Your task to perform on an android device: Open Youtube and go to "Your channel" Image 0: 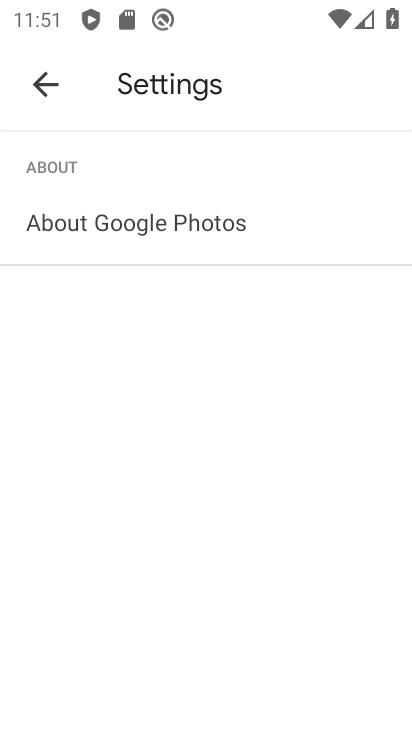
Step 0: press home button
Your task to perform on an android device: Open Youtube and go to "Your channel" Image 1: 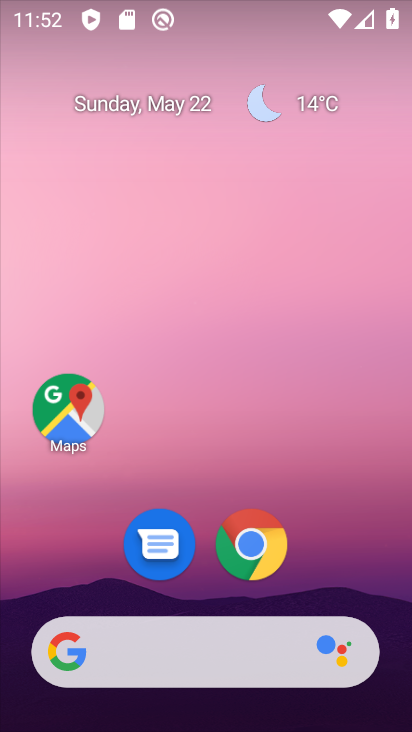
Step 1: drag from (304, 513) to (318, 142)
Your task to perform on an android device: Open Youtube and go to "Your channel" Image 2: 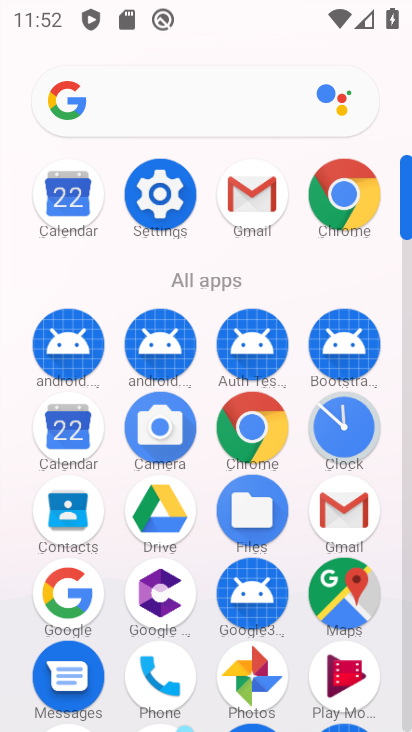
Step 2: drag from (262, 605) to (304, 181)
Your task to perform on an android device: Open Youtube and go to "Your channel" Image 3: 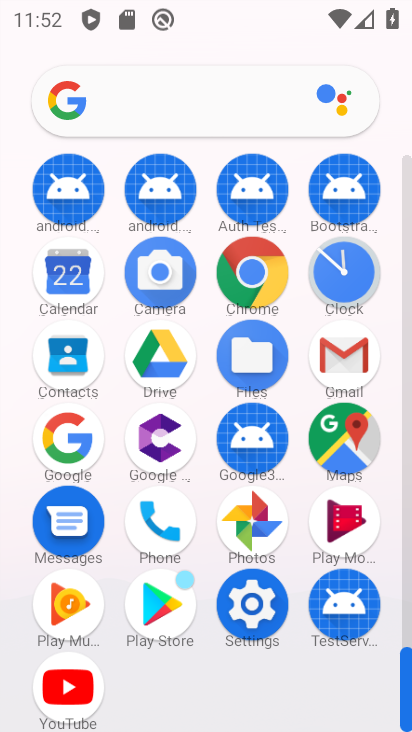
Step 3: click (65, 687)
Your task to perform on an android device: Open Youtube and go to "Your channel" Image 4: 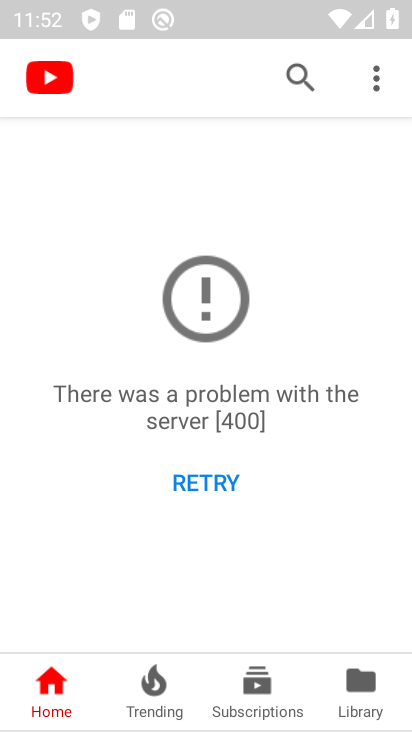
Step 4: click (212, 488)
Your task to perform on an android device: Open Youtube and go to "Your channel" Image 5: 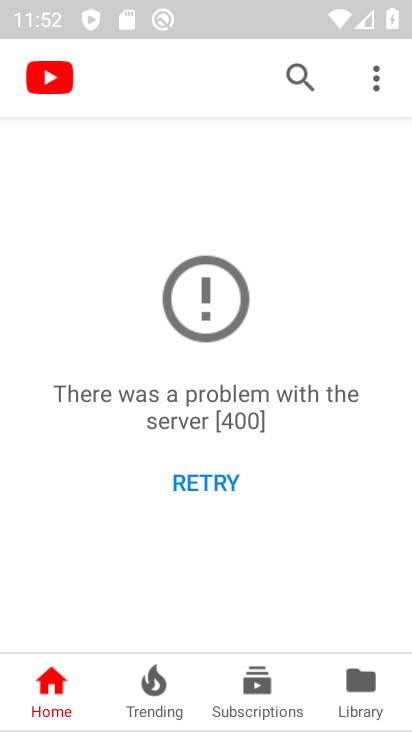
Step 5: click (212, 486)
Your task to perform on an android device: Open Youtube and go to "Your channel" Image 6: 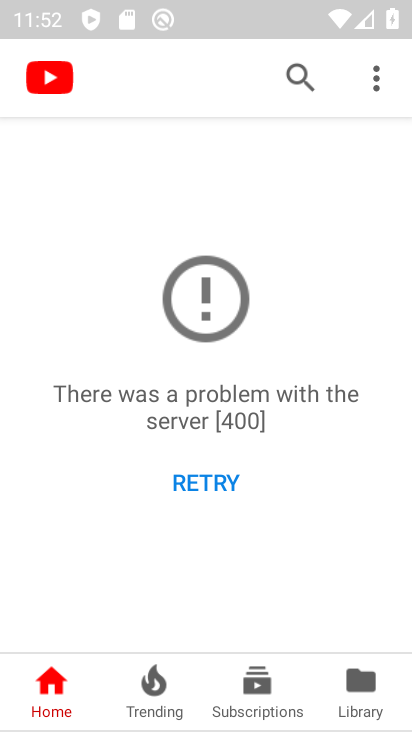
Step 6: task complete